Your task to perform on an android device: toggle improve location accuracy Image 0: 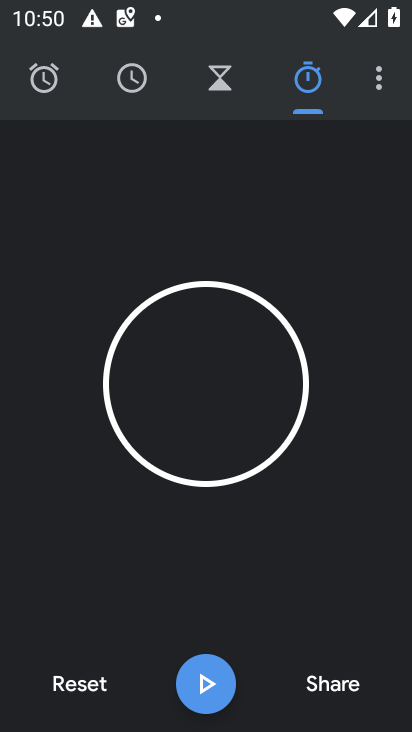
Step 0: press home button
Your task to perform on an android device: toggle improve location accuracy Image 1: 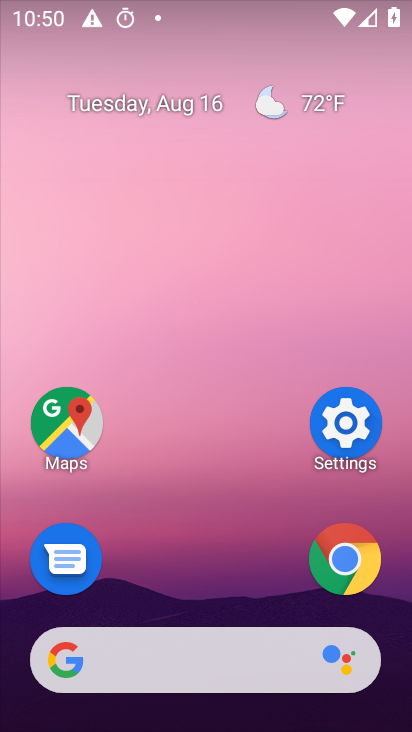
Step 1: click (344, 426)
Your task to perform on an android device: toggle improve location accuracy Image 2: 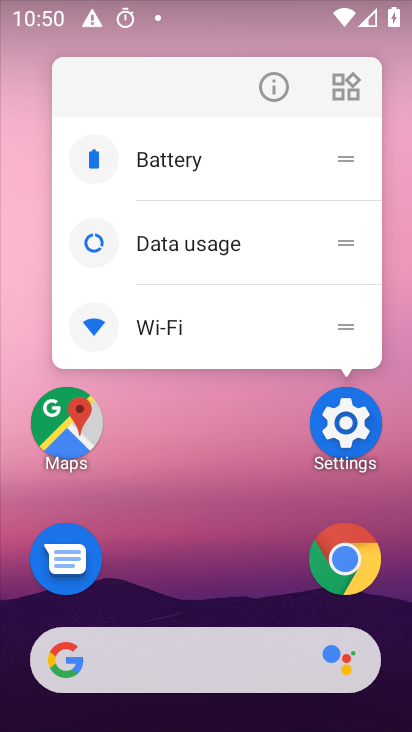
Step 2: click (344, 426)
Your task to perform on an android device: toggle improve location accuracy Image 3: 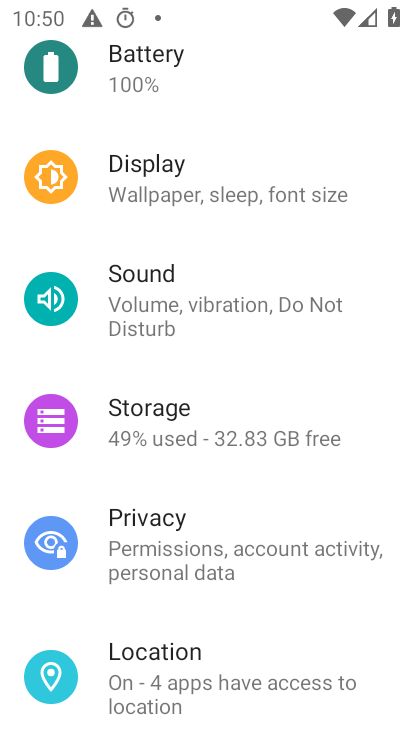
Step 3: drag from (244, 619) to (349, 178)
Your task to perform on an android device: toggle improve location accuracy Image 4: 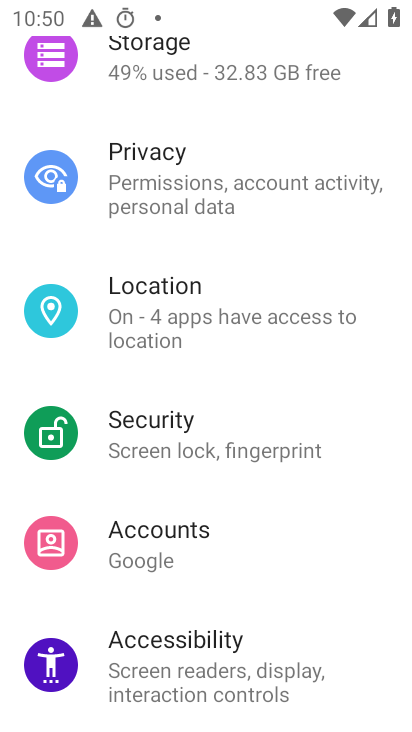
Step 4: click (174, 298)
Your task to perform on an android device: toggle improve location accuracy Image 5: 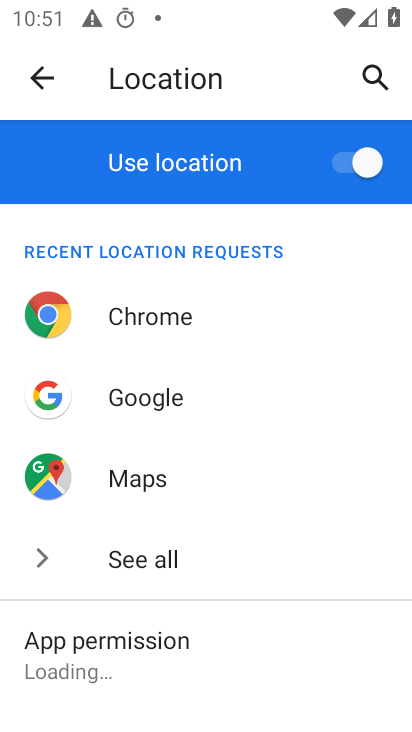
Step 5: drag from (251, 588) to (348, 244)
Your task to perform on an android device: toggle improve location accuracy Image 6: 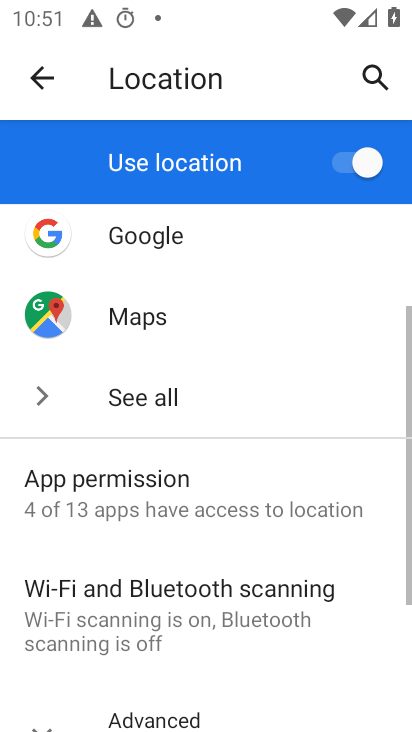
Step 6: drag from (237, 631) to (320, 213)
Your task to perform on an android device: toggle improve location accuracy Image 7: 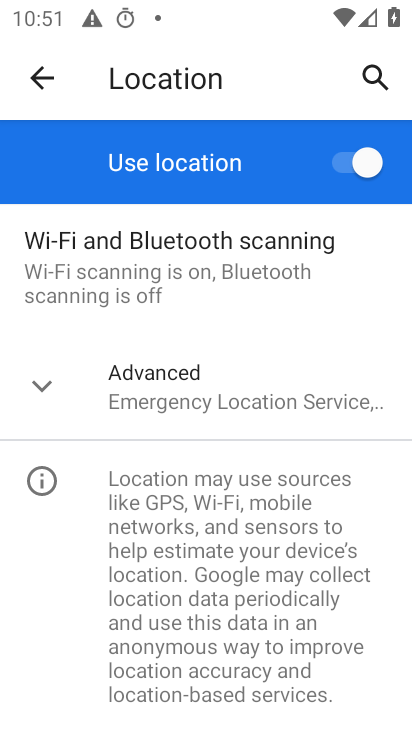
Step 7: click (202, 403)
Your task to perform on an android device: toggle improve location accuracy Image 8: 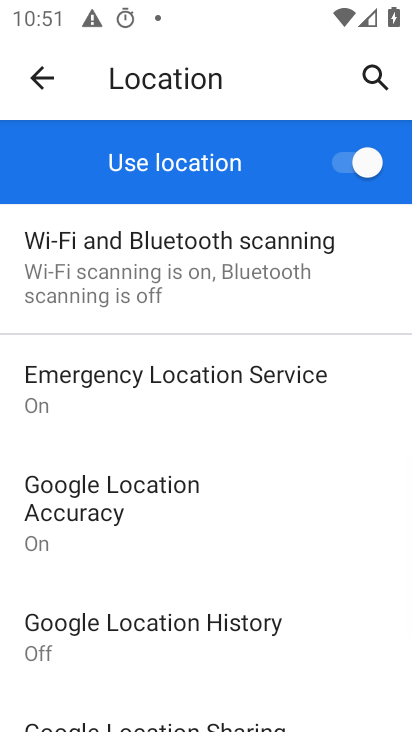
Step 8: click (140, 502)
Your task to perform on an android device: toggle improve location accuracy Image 9: 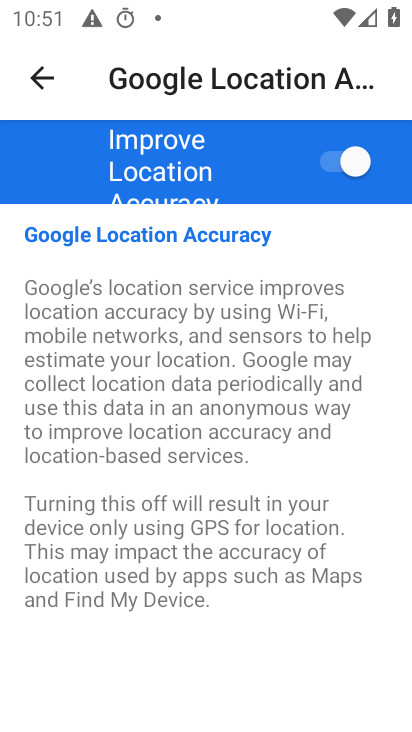
Step 9: click (334, 154)
Your task to perform on an android device: toggle improve location accuracy Image 10: 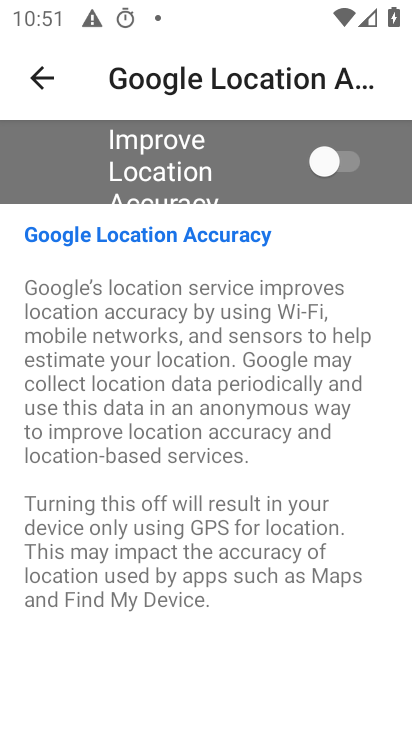
Step 10: task complete